Your task to perform on an android device: What is the recent news? Image 0: 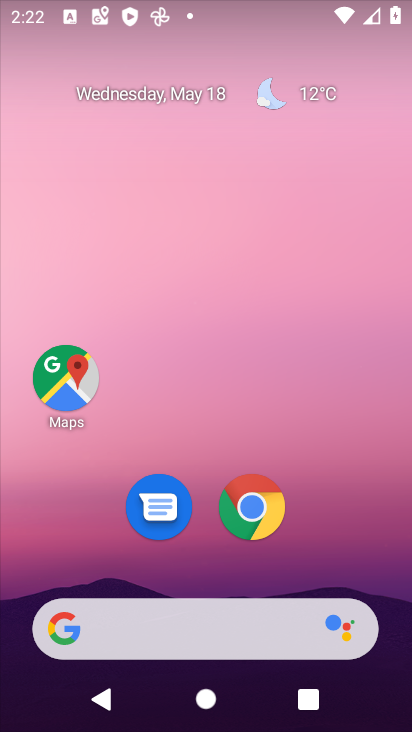
Step 0: drag from (4, 248) to (406, 353)
Your task to perform on an android device: What is the recent news? Image 1: 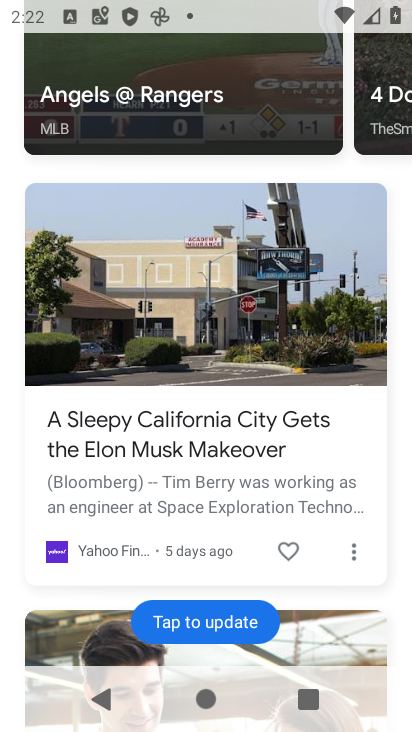
Step 1: task complete